Your task to perform on an android device: turn on airplane mode Image 0: 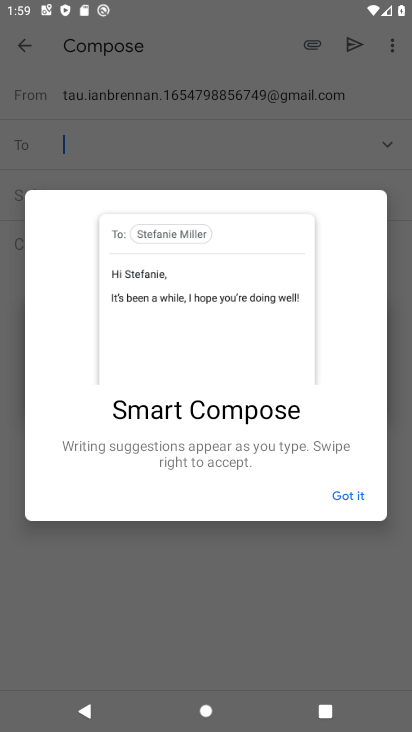
Step 0: press home button
Your task to perform on an android device: turn on airplane mode Image 1: 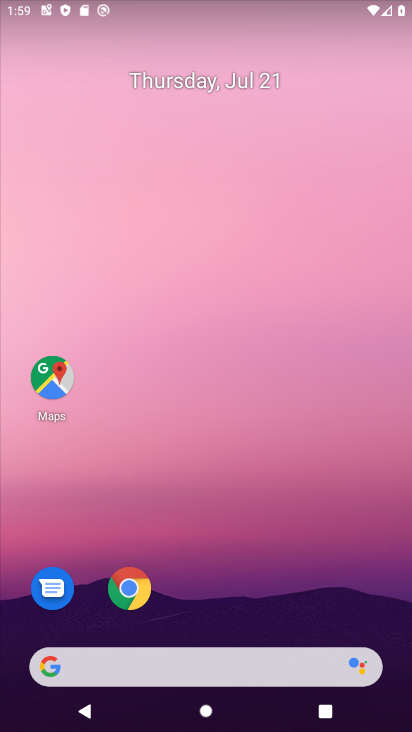
Step 1: drag from (211, 628) to (130, 65)
Your task to perform on an android device: turn on airplane mode Image 2: 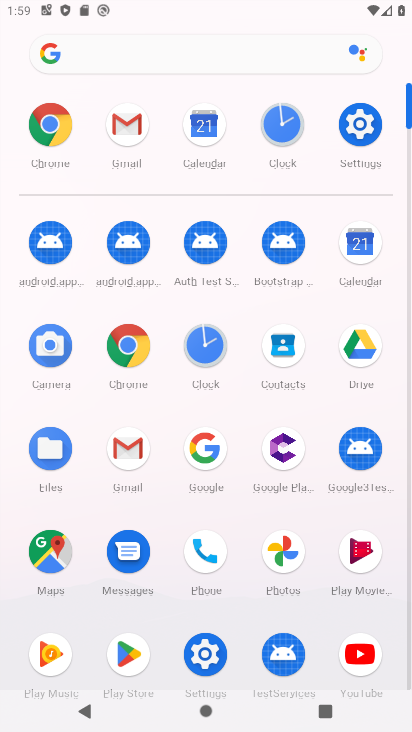
Step 2: click (340, 122)
Your task to perform on an android device: turn on airplane mode Image 3: 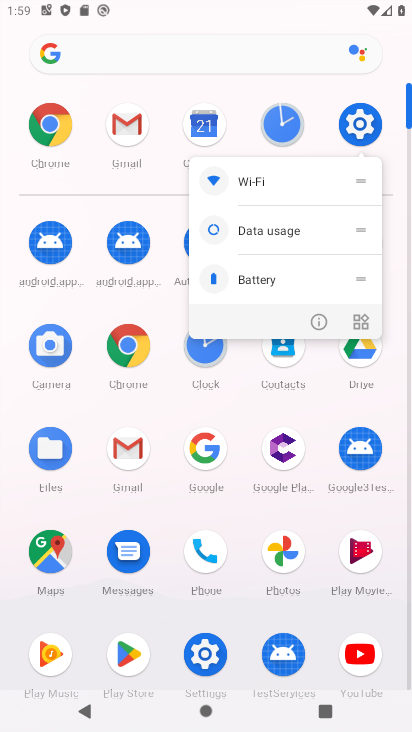
Step 3: click (357, 128)
Your task to perform on an android device: turn on airplane mode Image 4: 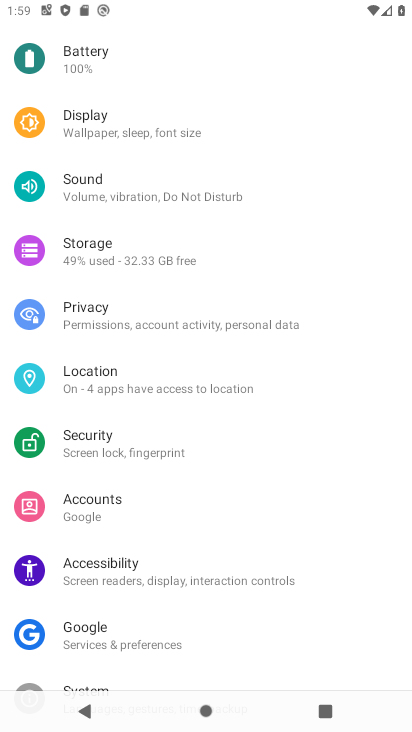
Step 4: drag from (117, 124) to (67, 665)
Your task to perform on an android device: turn on airplane mode Image 5: 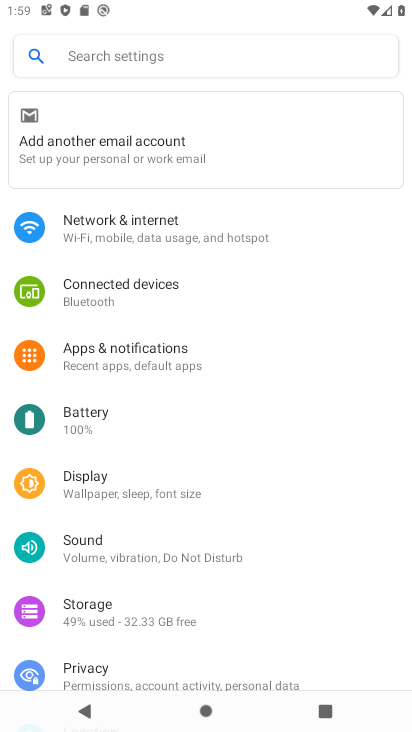
Step 5: click (134, 216)
Your task to perform on an android device: turn on airplane mode Image 6: 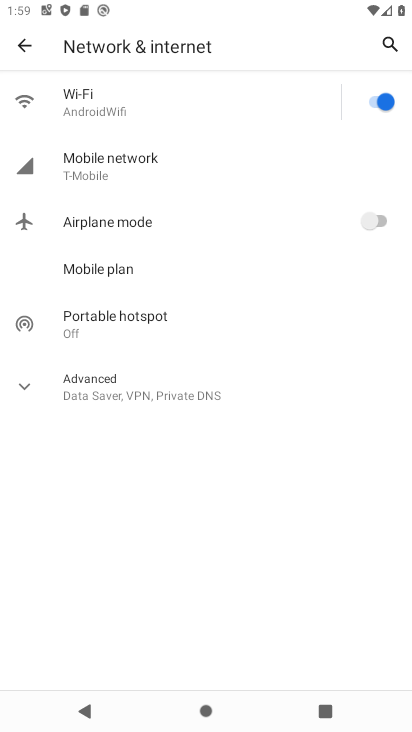
Step 6: click (377, 209)
Your task to perform on an android device: turn on airplane mode Image 7: 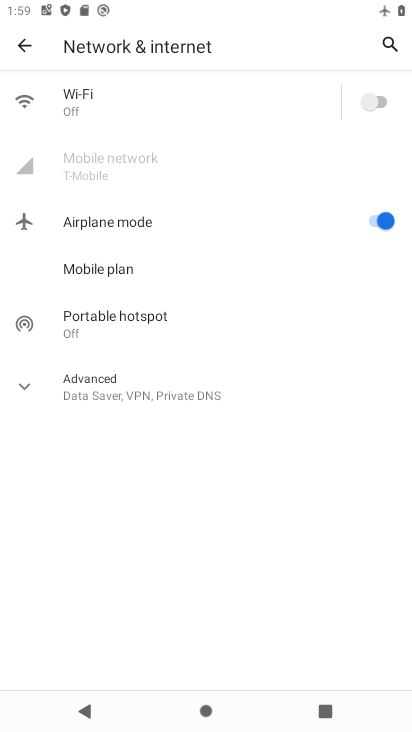
Step 7: task complete